Your task to perform on an android device: Go to notification settings Image 0: 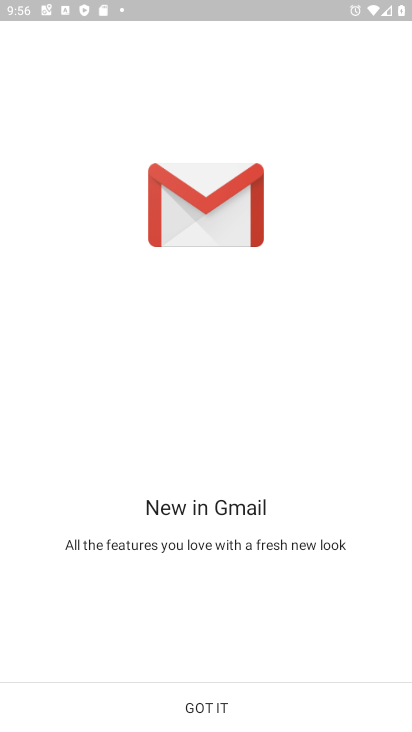
Step 0: press home button
Your task to perform on an android device: Go to notification settings Image 1: 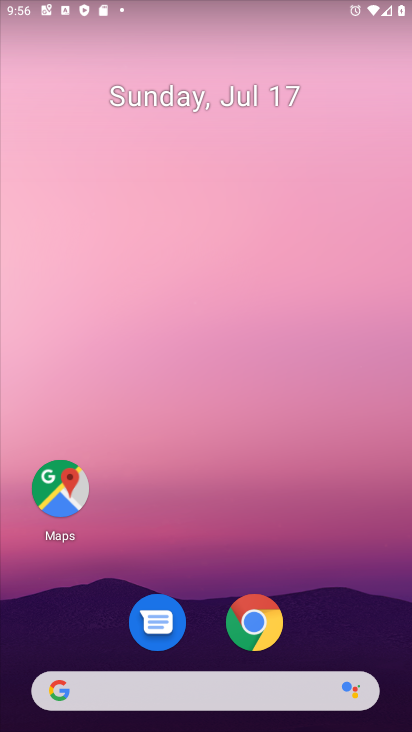
Step 1: drag from (124, 715) to (269, 99)
Your task to perform on an android device: Go to notification settings Image 2: 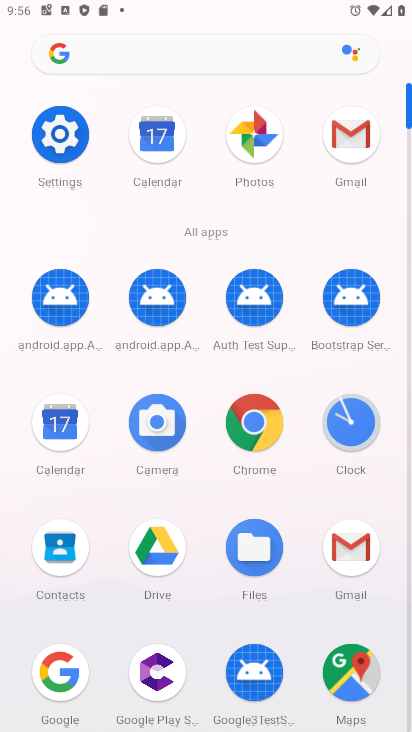
Step 2: click (73, 145)
Your task to perform on an android device: Go to notification settings Image 3: 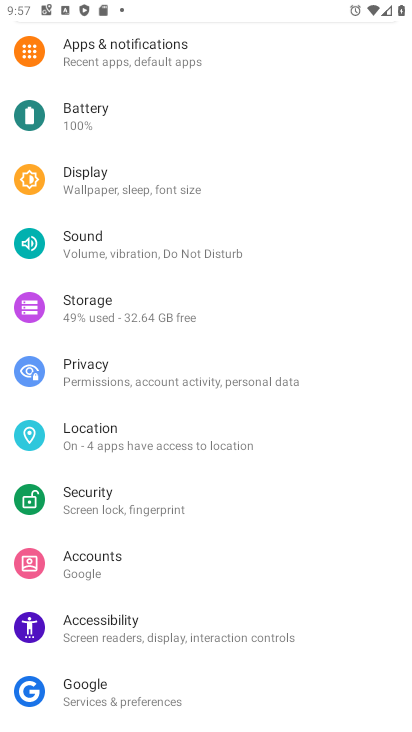
Step 3: task complete